Your task to perform on an android device: install app "Airtel Thanks" Image 0: 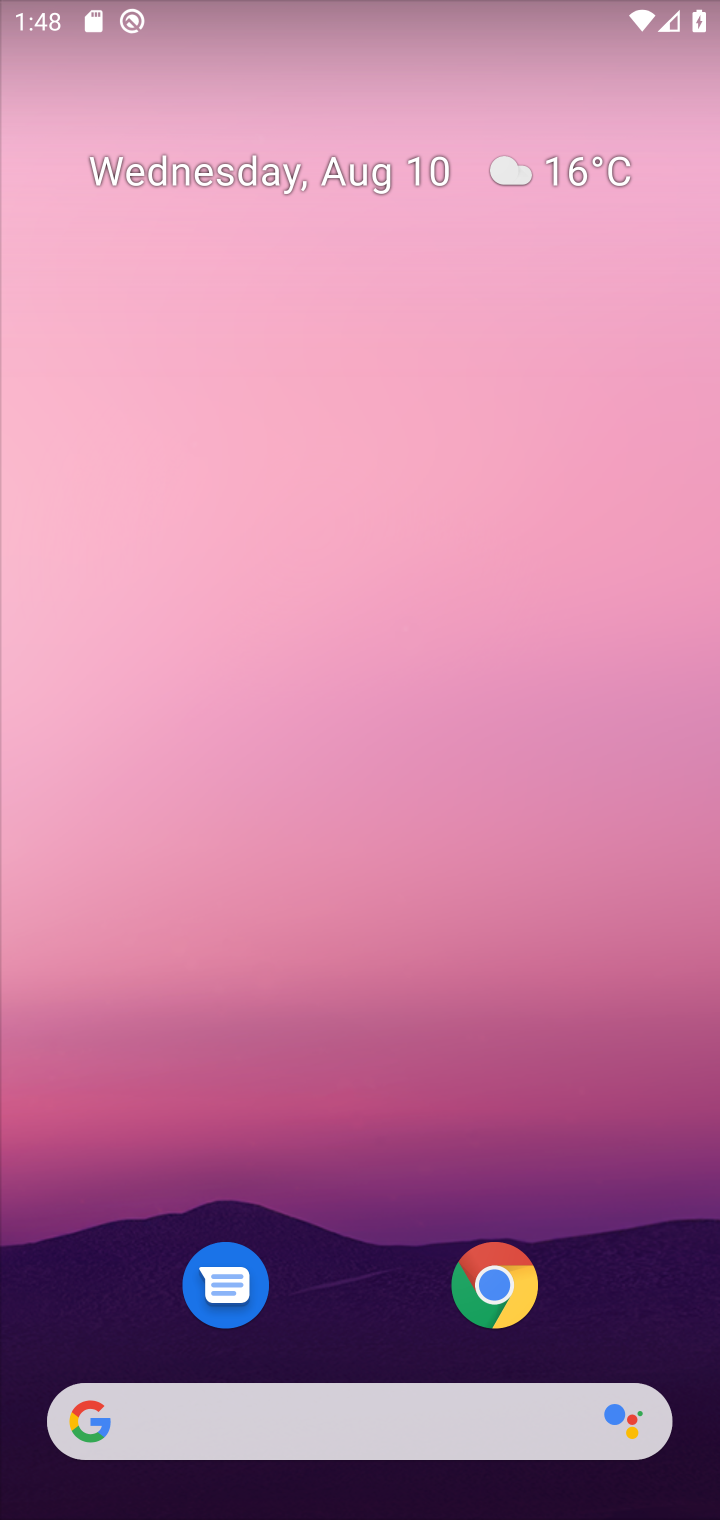
Step 0: drag from (699, 789) to (616, 293)
Your task to perform on an android device: install app "Airtel Thanks" Image 1: 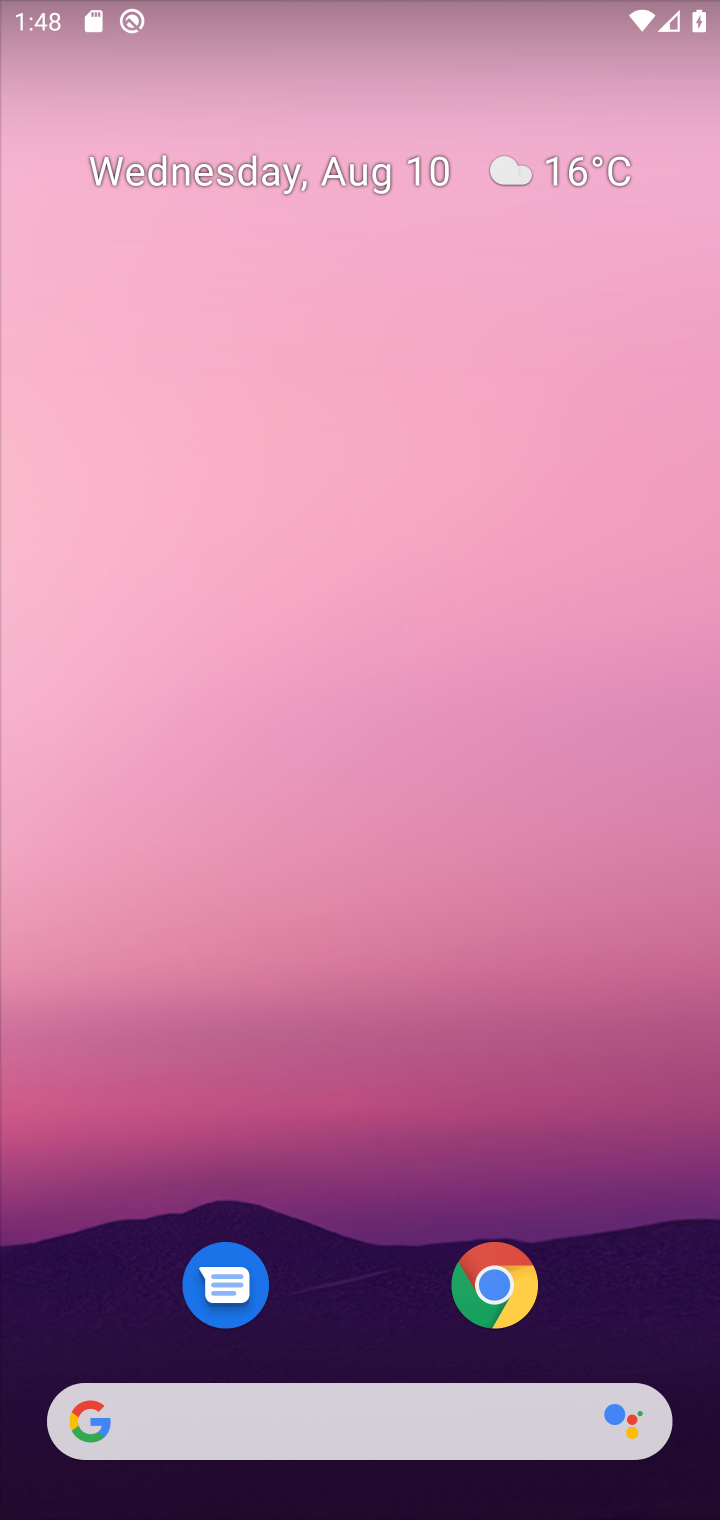
Step 1: drag from (591, 1199) to (538, 612)
Your task to perform on an android device: install app "Airtel Thanks" Image 2: 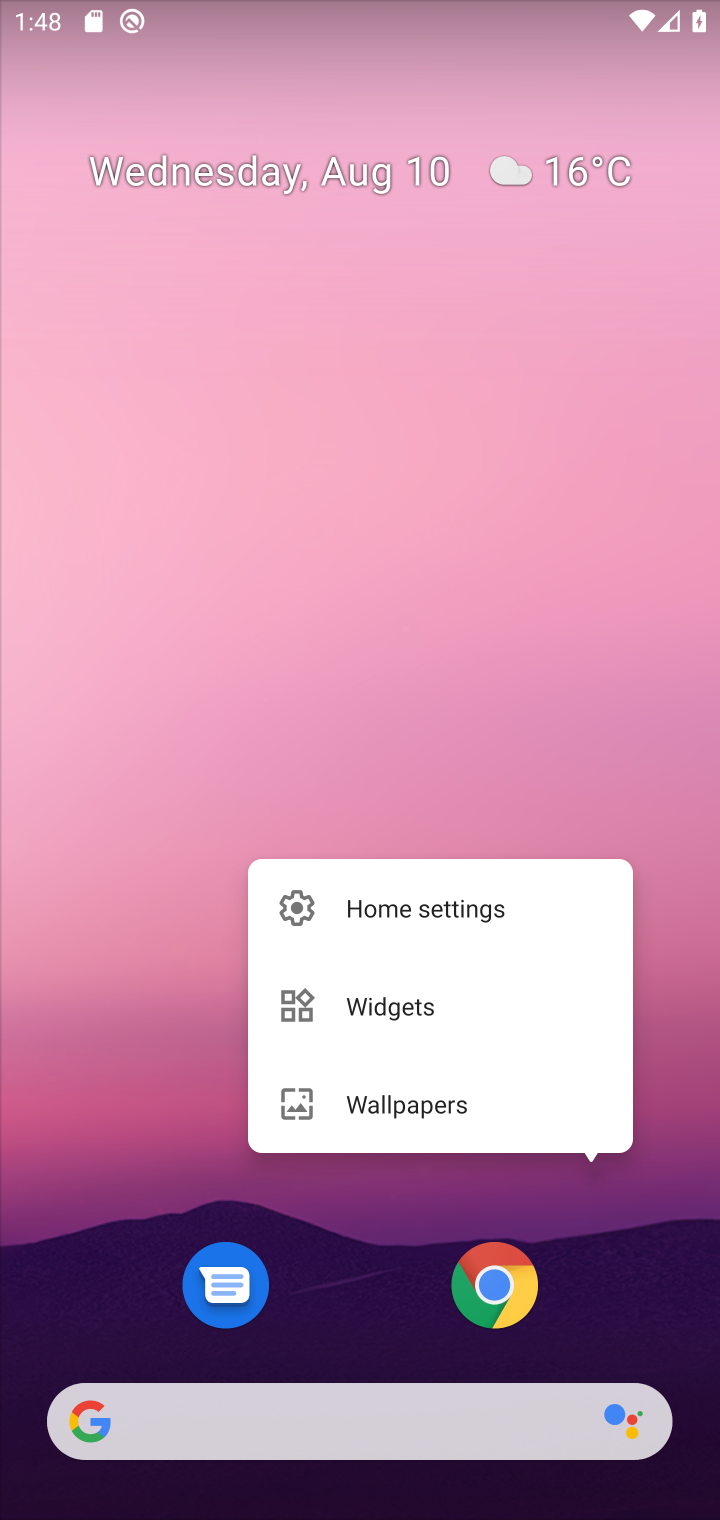
Step 2: drag from (676, 1135) to (518, 88)
Your task to perform on an android device: install app "Airtel Thanks" Image 3: 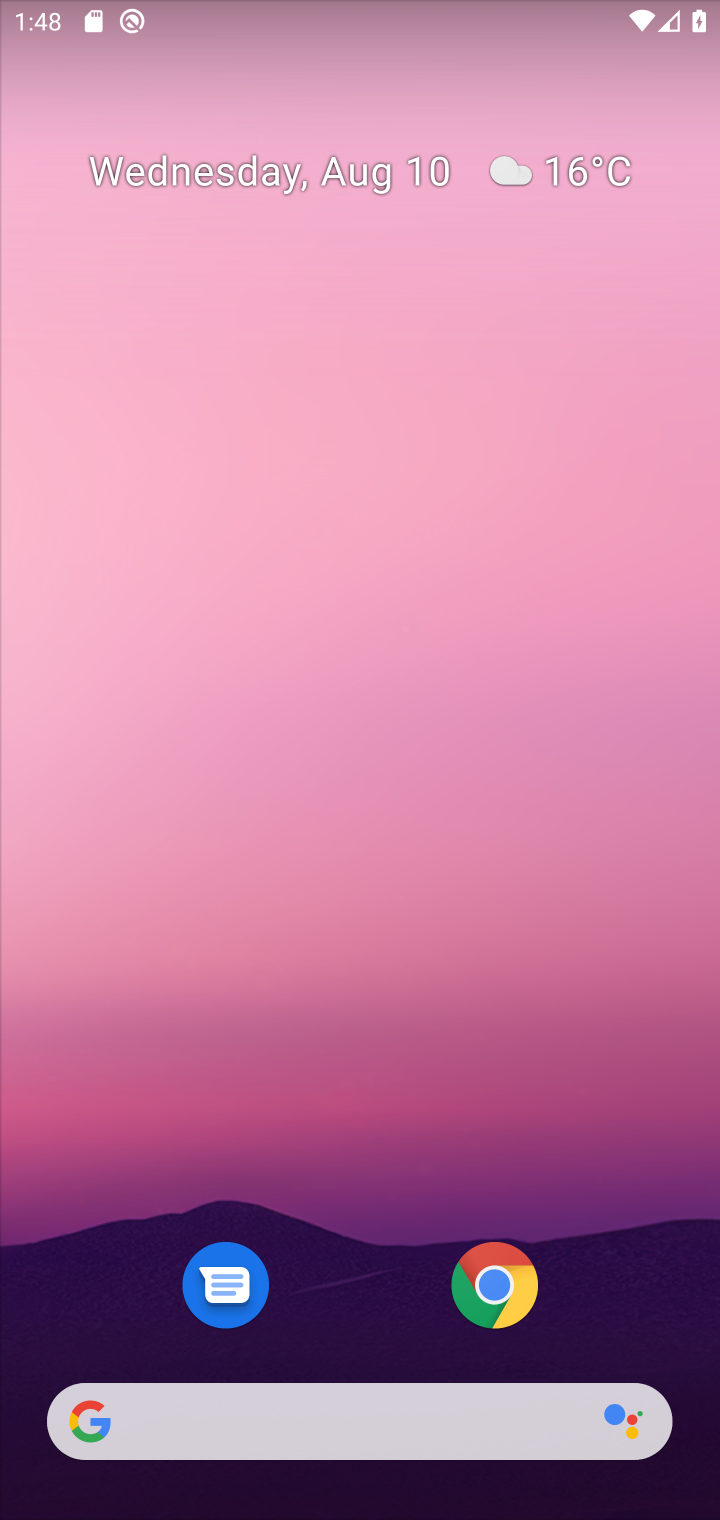
Step 3: drag from (389, 1307) to (316, 412)
Your task to perform on an android device: install app "Airtel Thanks" Image 4: 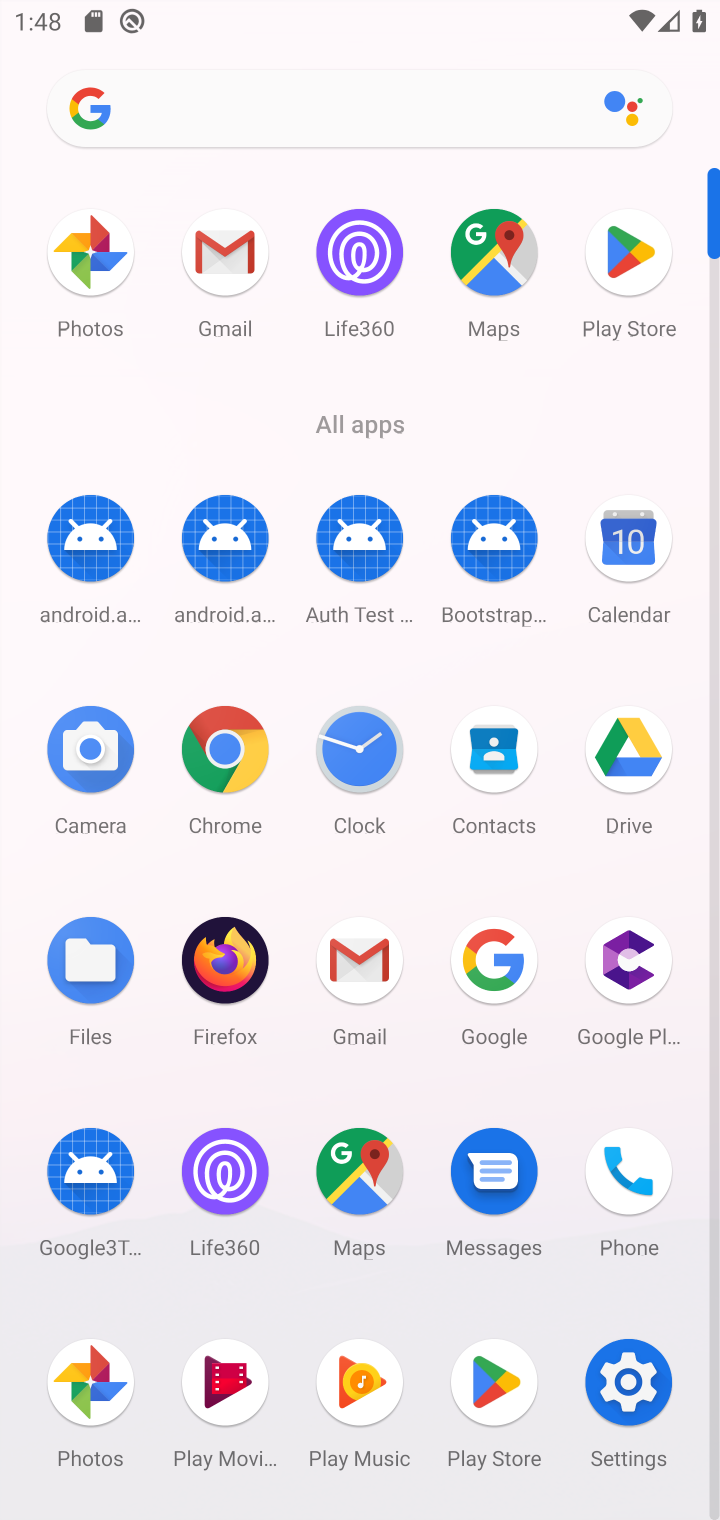
Step 4: drag from (413, 1027) to (419, 862)
Your task to perform on an android device: install app "Airtel Thanks" Image 5: 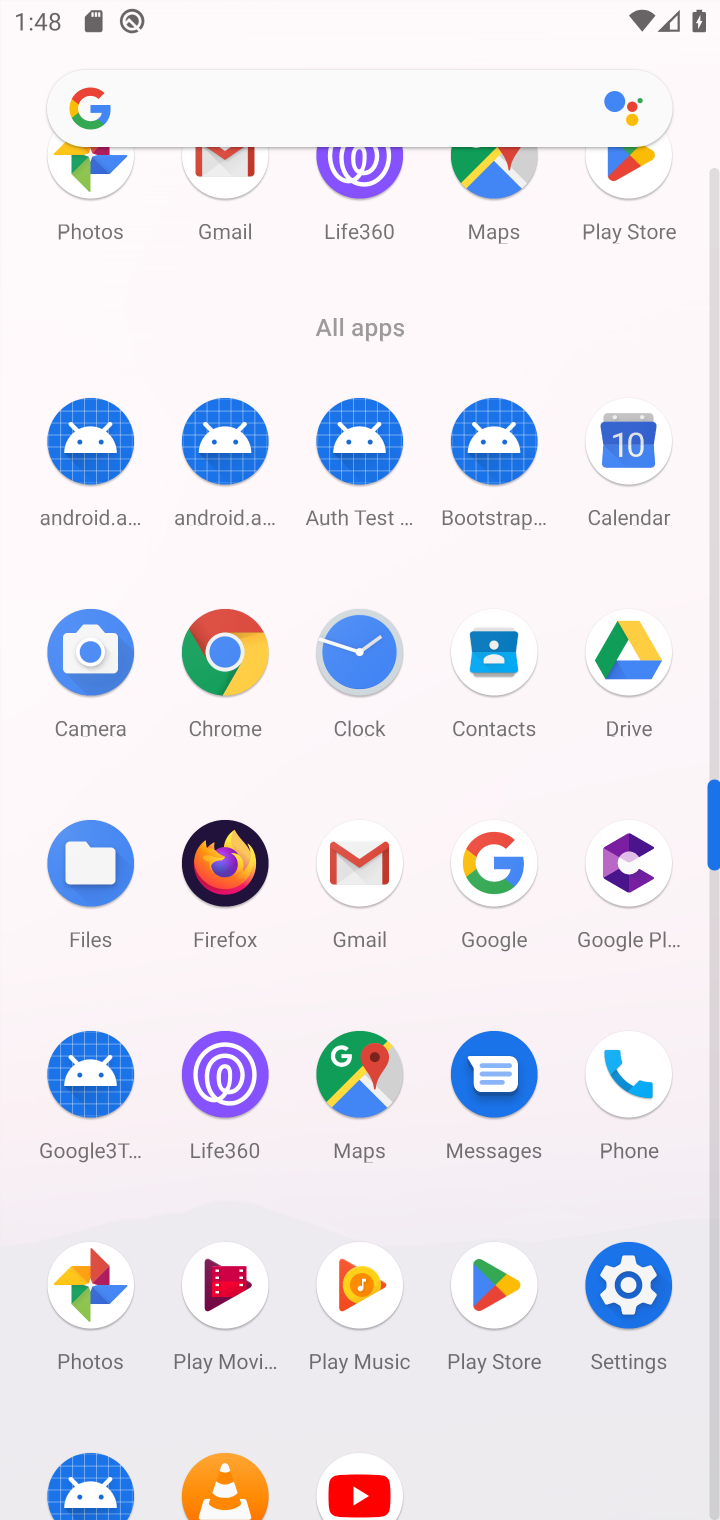
Step 5: click (476, 1291)
Your task to perform on an android device: install app "Airtel Thanks" Image 6: 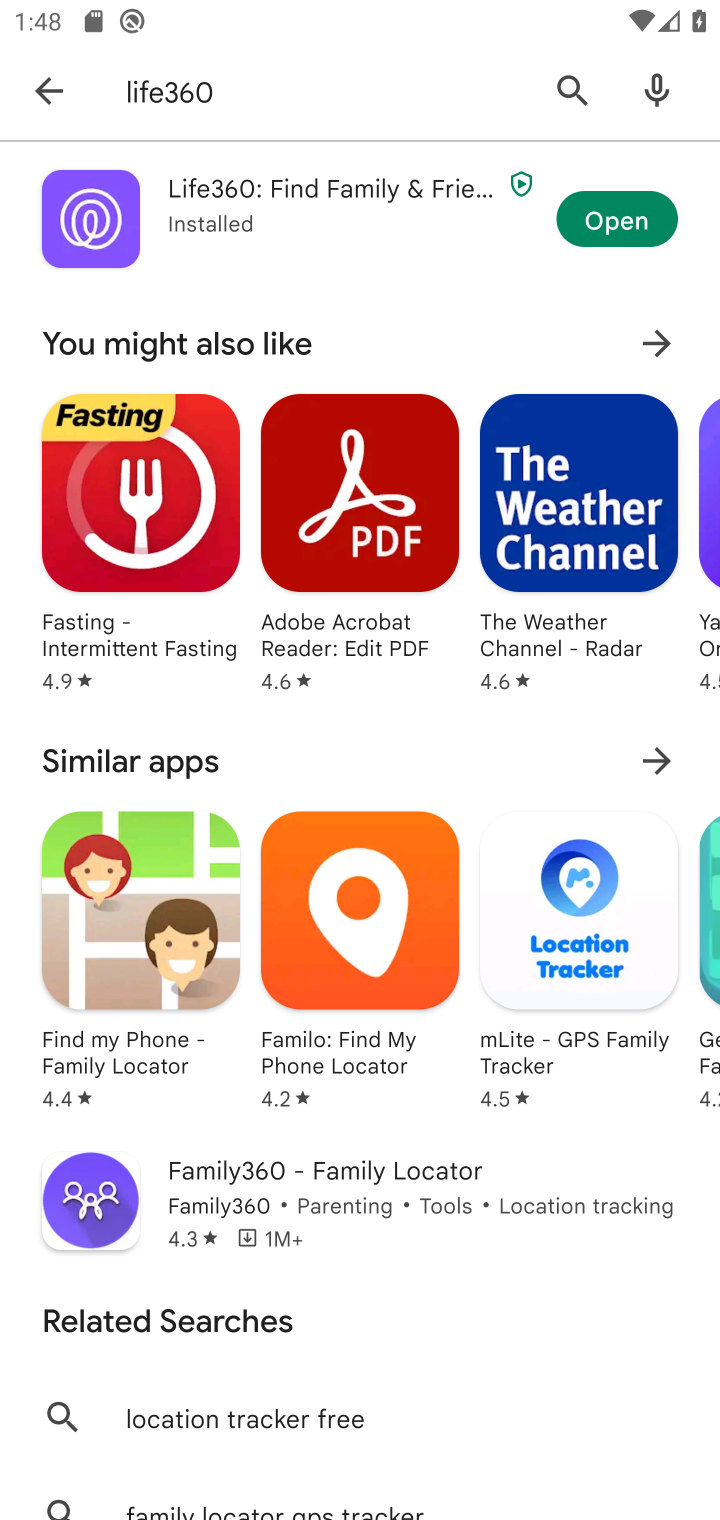
Step 6: click (560, 77)
Your task to perform on an android device: install app "Airtel Thanks" Image 7: 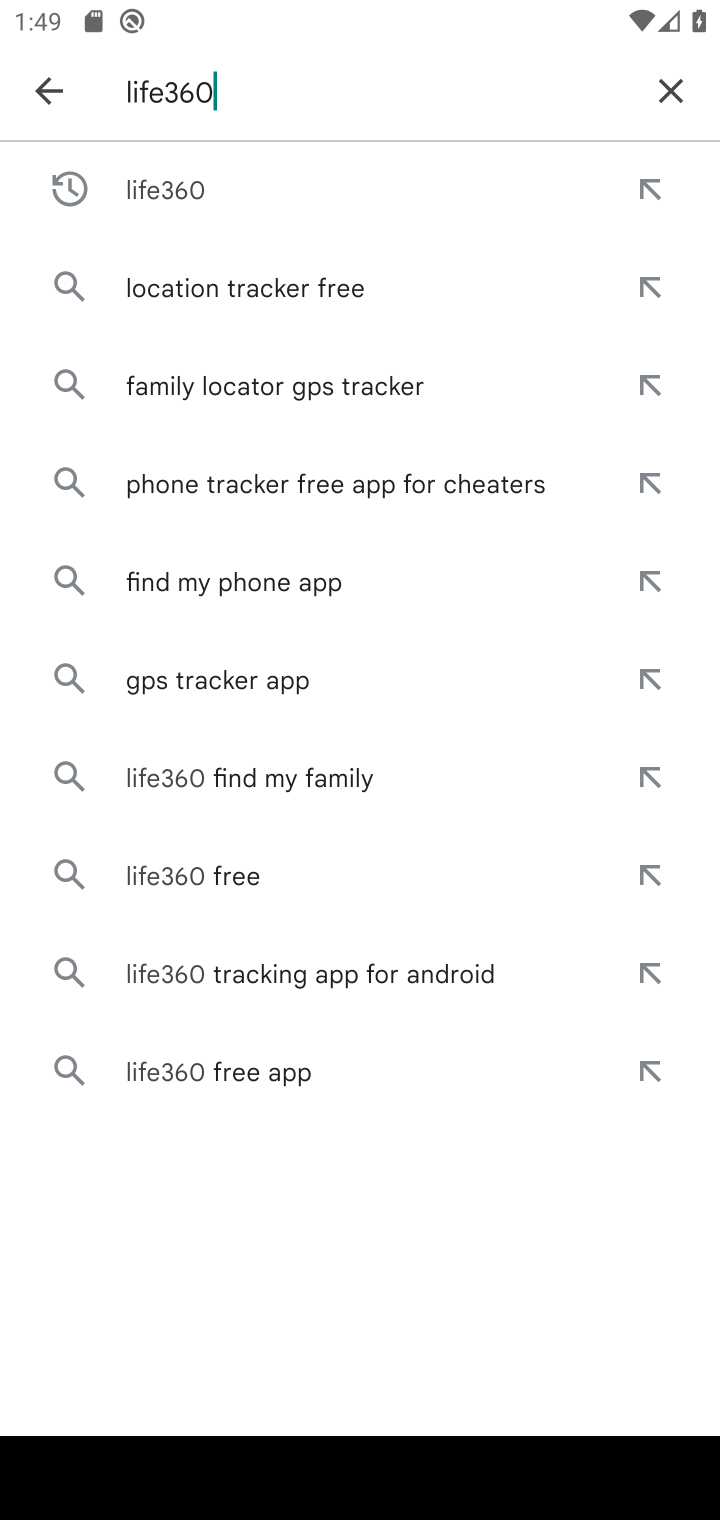
Step 7: click (681, 92)
Your task to perform on an android device: install app "Airtel Thanks" Image 8: 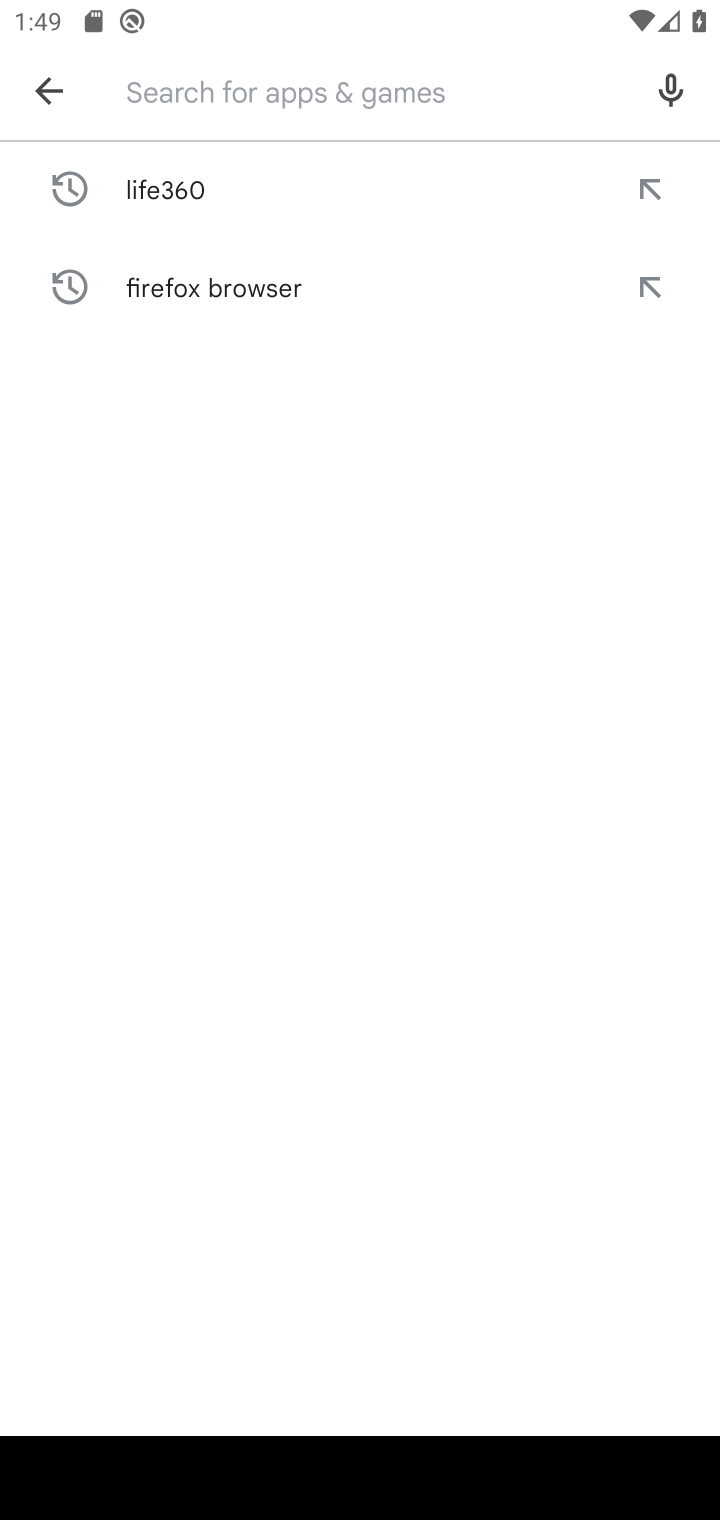
Step 8: type "airtel thanks"
Your task to perform on an android device: install app "Airtel Thanks" Image 9: 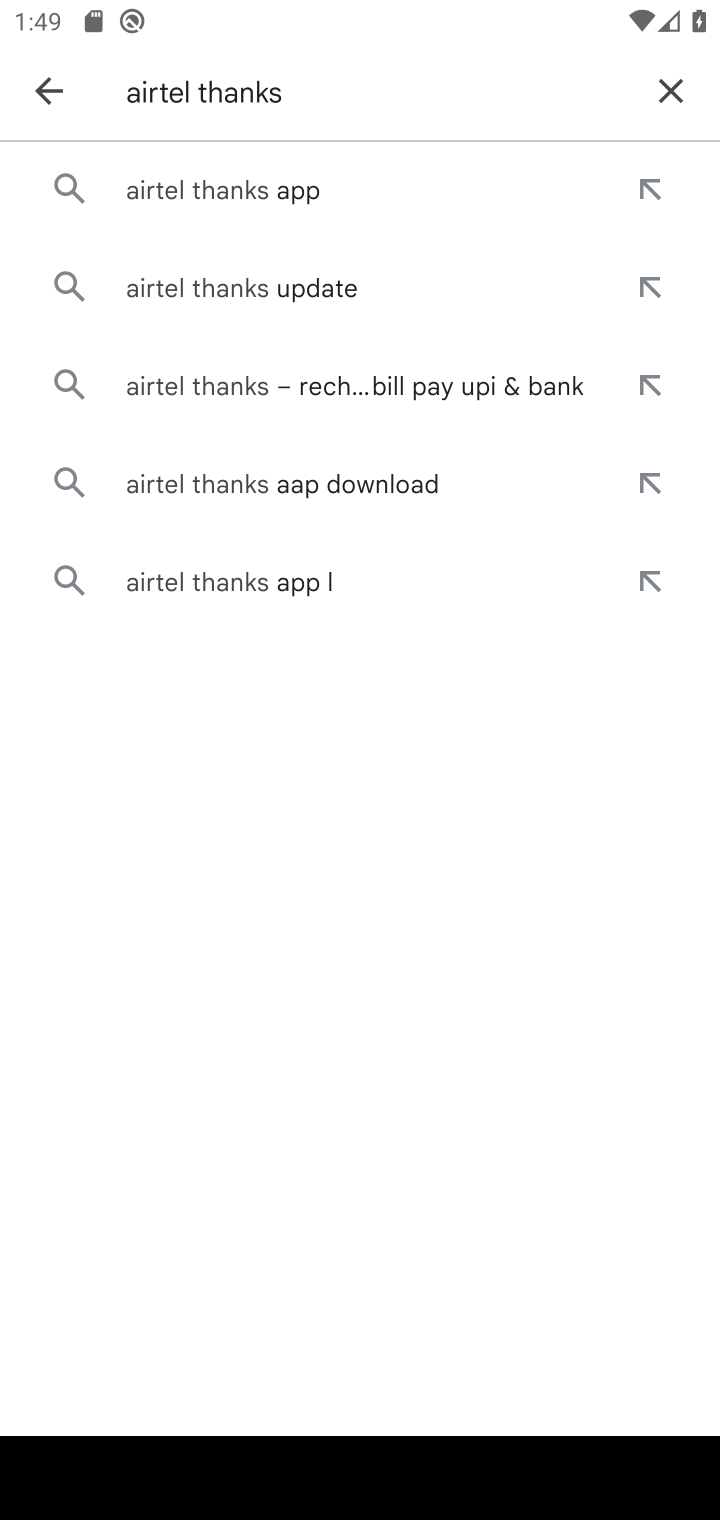
Step 9: click (210, 197)
Your task to perform on an android device: install app "Airtel Thanks" Image 10: 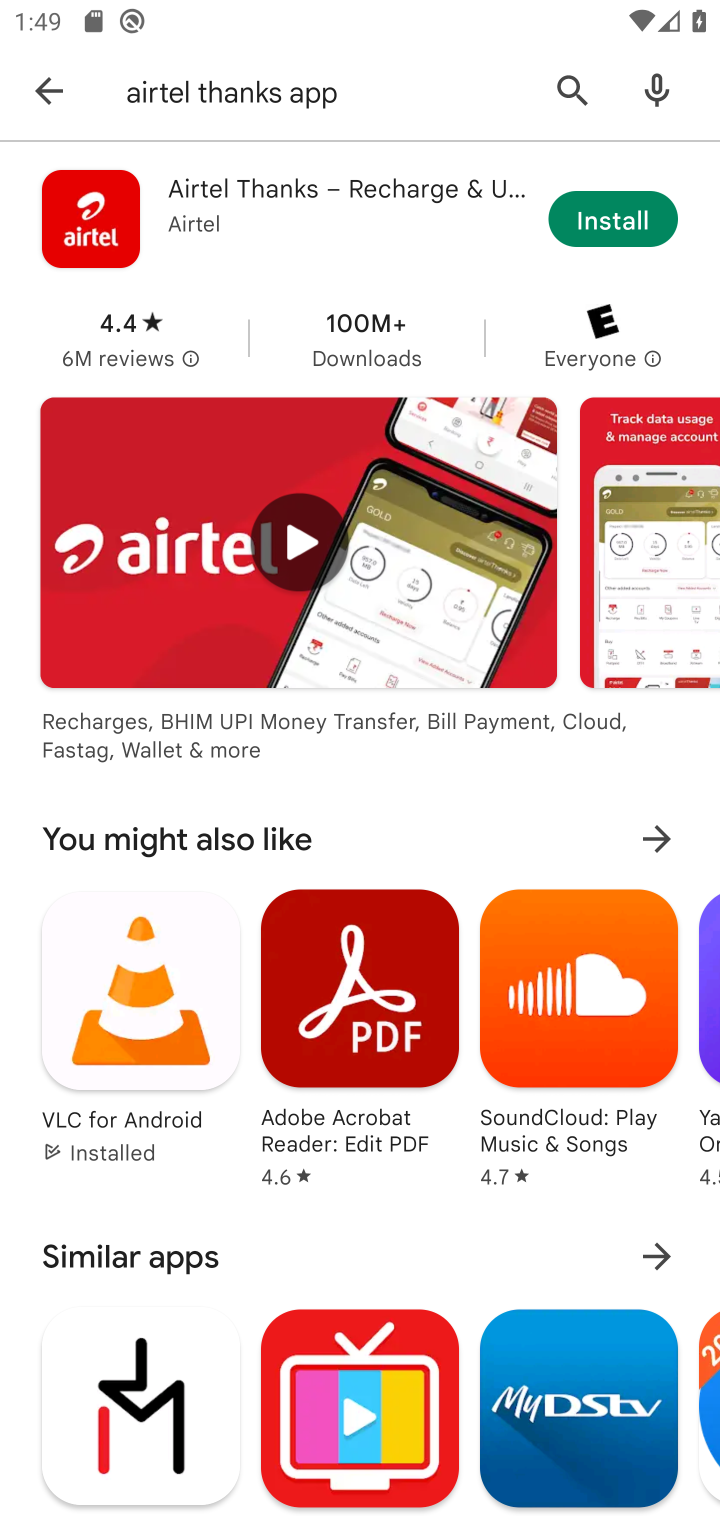
Step 10: click (616, 235)
Your task to perform on an android device: install app "Airtel Thanks" Image 11: 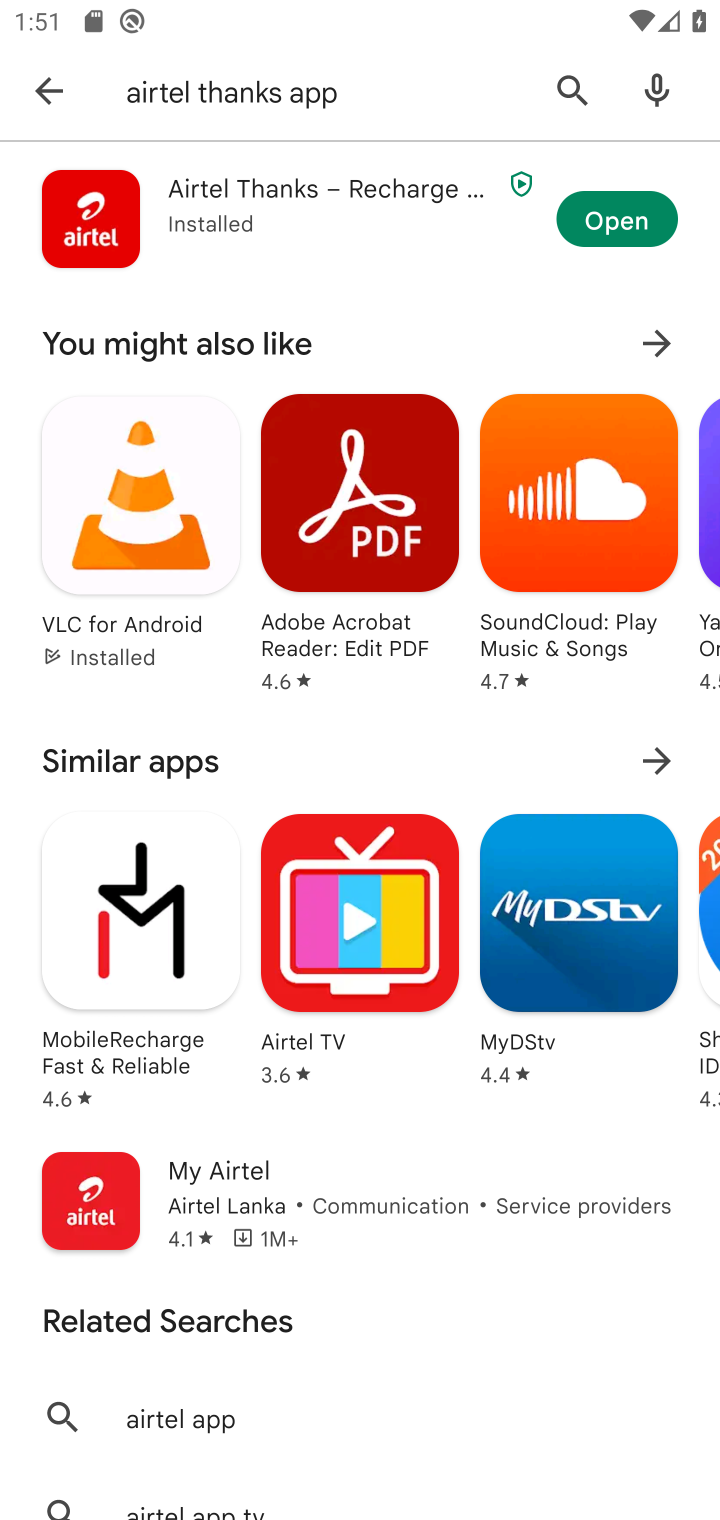
Step 11: task complete